Your task to perform on an android device: Go to accessibility settings Image 0: 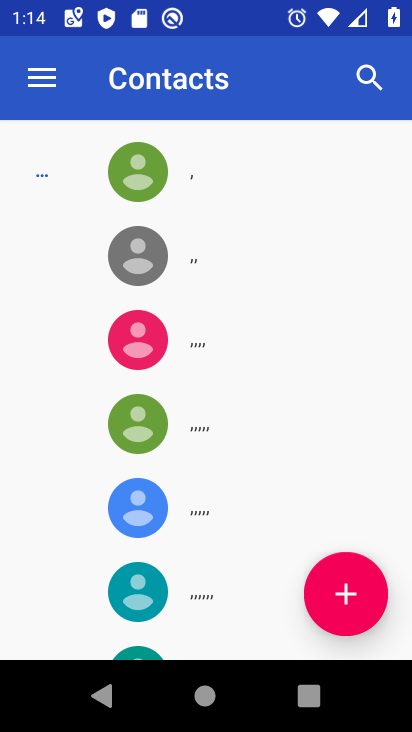
Step 0: press home button
Your task to perform on an android device: Go to accessibility settings Image 1: 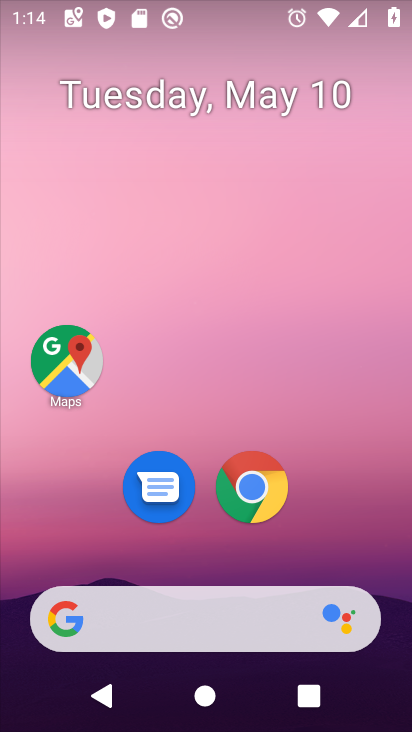
Step 1: drag from (300, 539) to (360, 131)
Your task to perform on an android device: Go to accessibility settings Image 2: 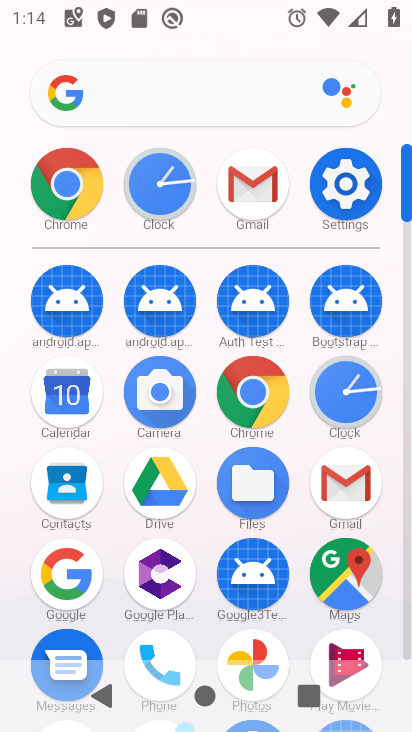
Step 2: click (349, 165)
Your task to perform on an android device: Go to accessibility settings Image 3: 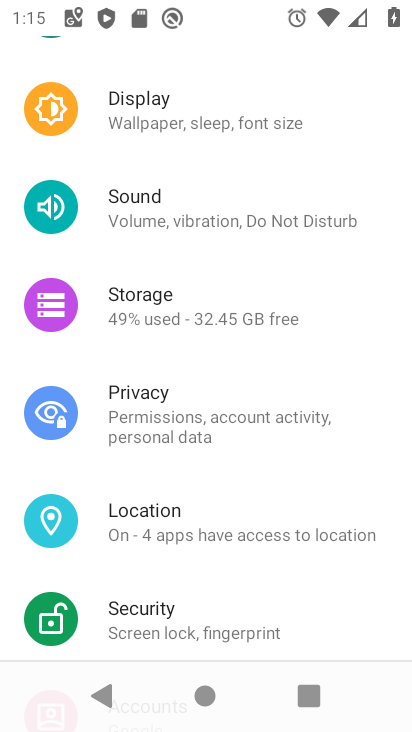
Step 3: drag from (276, 243) to (191, 456)
Your task to perform on an android device: Go to accessibility settings Image 4: 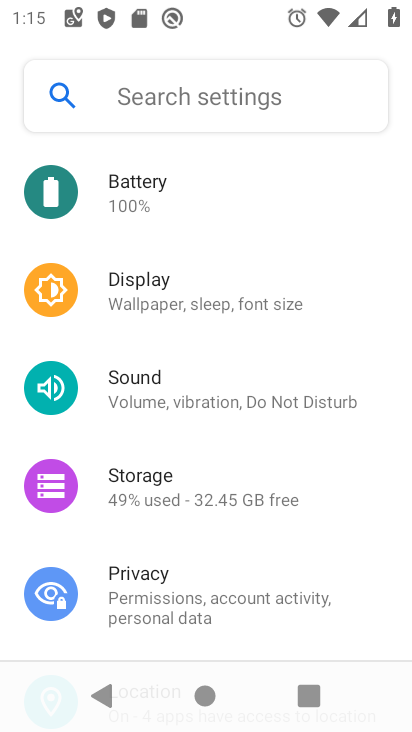
Step 4: drag from (191, 456) to (126, 519)
Your task to perform on an android device: Go to accessibility settings Image 5: 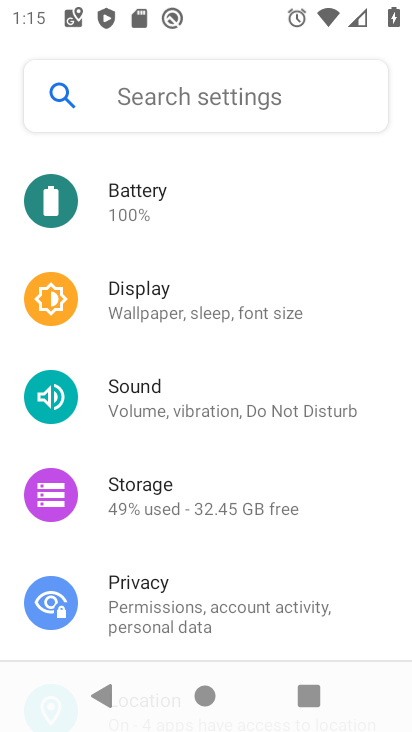
Step 5: drag from (136, 550) to (202, 272)
Your task to perform on an android device: Go to accessibility settings Image 6: 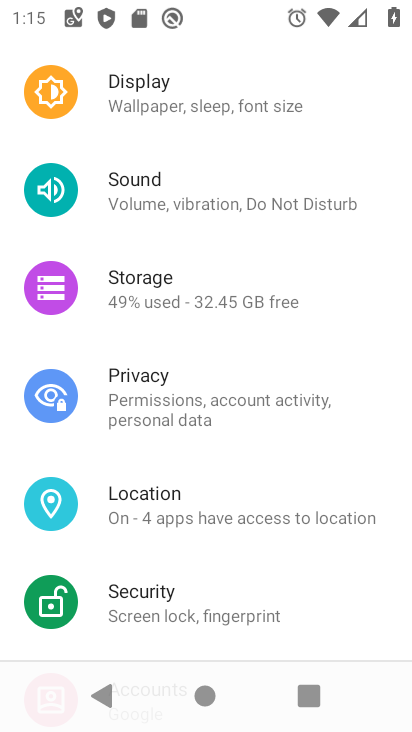
Step 6: drag from (127, 510) to (135, 387)
Your task to perform on an android device: Go to accessibility settings Image 7: 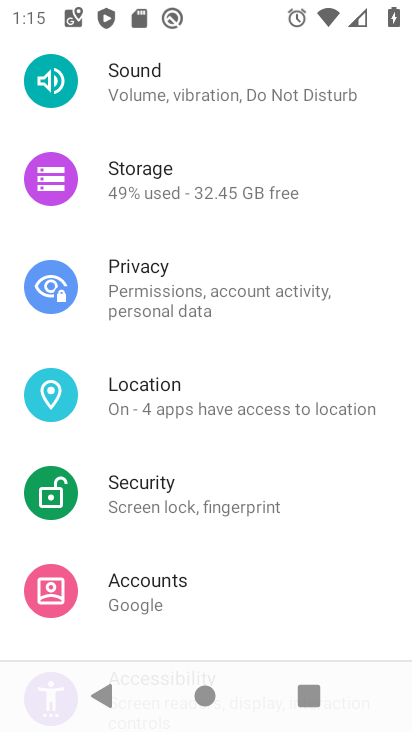
Step 7: click (139, 305)
Your task to perform on an android device: Go to accessibility settings Image 8: 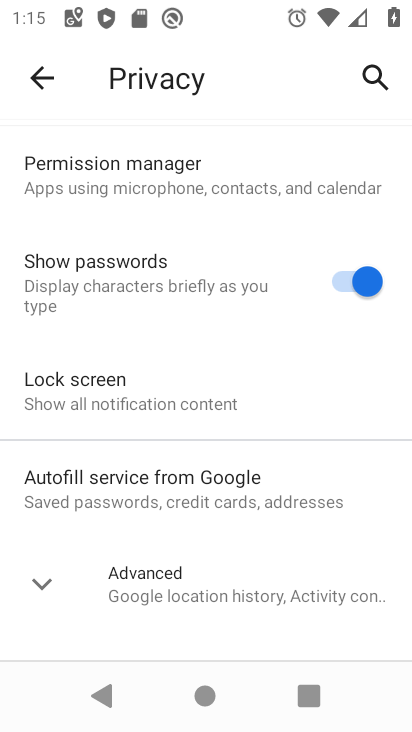
Step 8: click (49, 85)
Your task to perform on an android device: Go to accessibility settings Image 9: 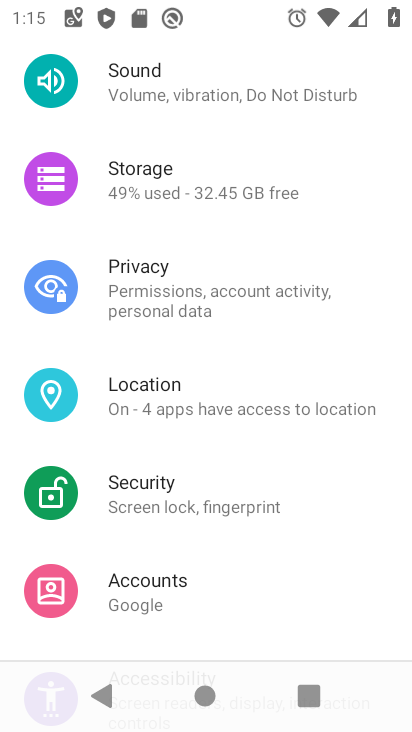
Step 9: drag from (108, 549) to (95, 307)
Your task to perform on an android device: Go to accessibility settings Image 10: 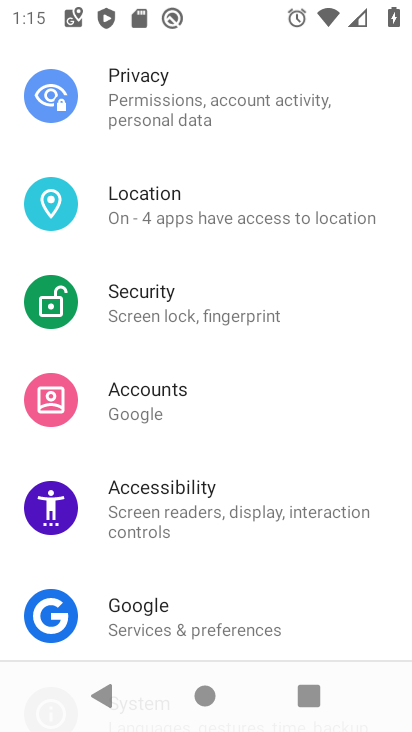
Step 10: click (146, 472)
Your task to perform on an android device: Go to accessibility settings Image 11: 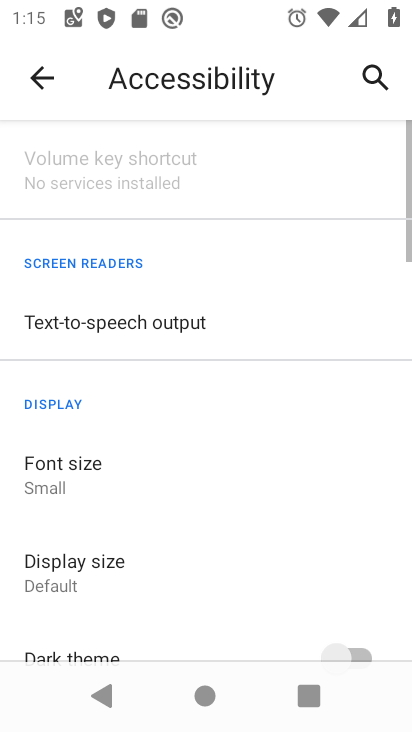
Step 11: task complete